Your task to perform on an android device: change text size in settings app Image 0: 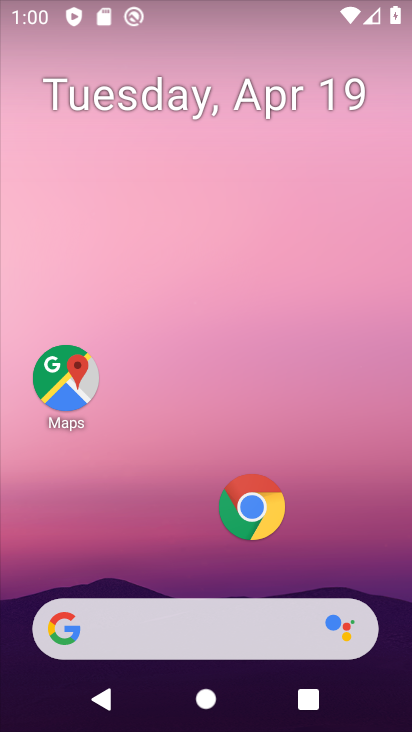
Step 0: drag from (207, 508) to (295, 27)
Your task to perform on an android device: change text size in settings app Image 1: 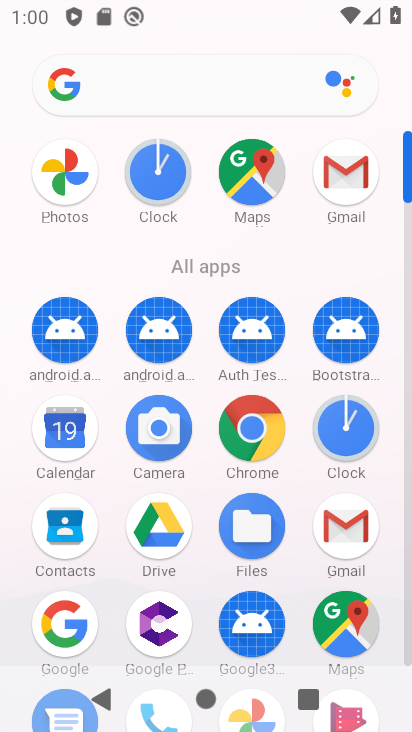
Step 1: drag from (207, 650) to (247, 292)
Your task to perform on an android device: change text size in settings app Image 2: 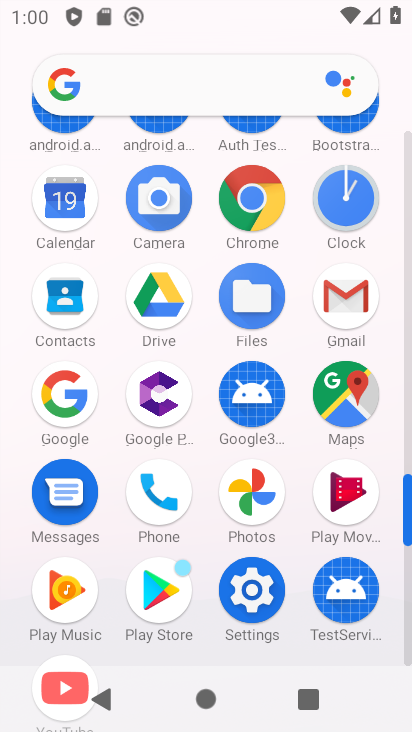
Step 2: click (243, 591)
Your task to perform on an android device: change text size in settings app Image 3: 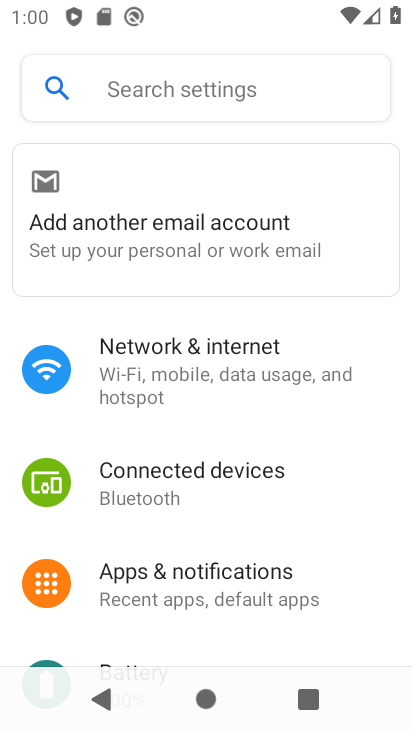
Step 3: drag from (185, 553) to (216, 202)
Your task to perform on an android device: change text size in settings app Image 4: 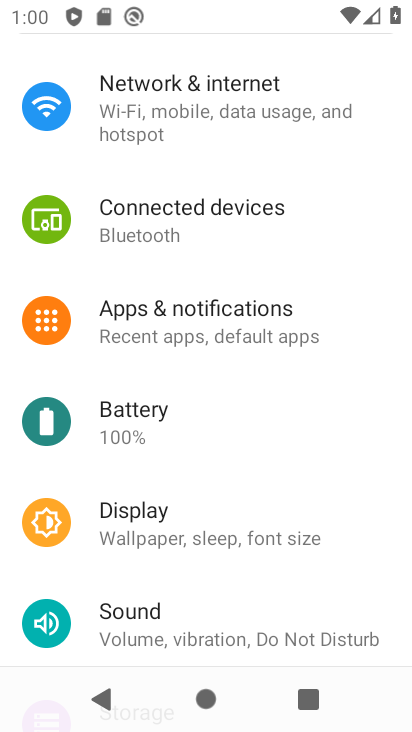
Step 4: click (203, 547)
Your task to perform on an android device: change text size in settings app Image 5: 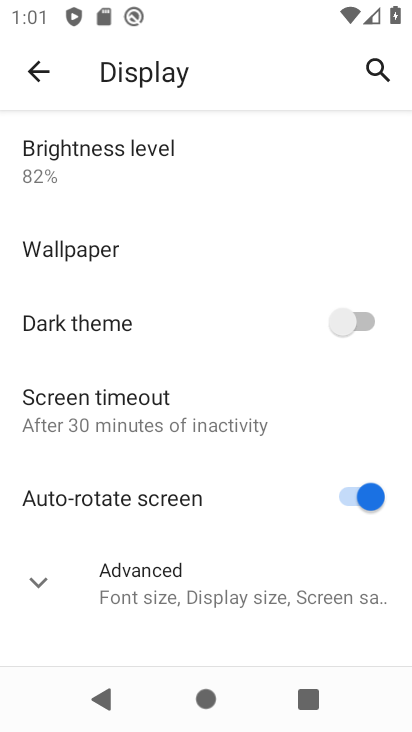
Step 5: click (166, 582)
Your task to perform on an android device: change text size in settings app Image 6: 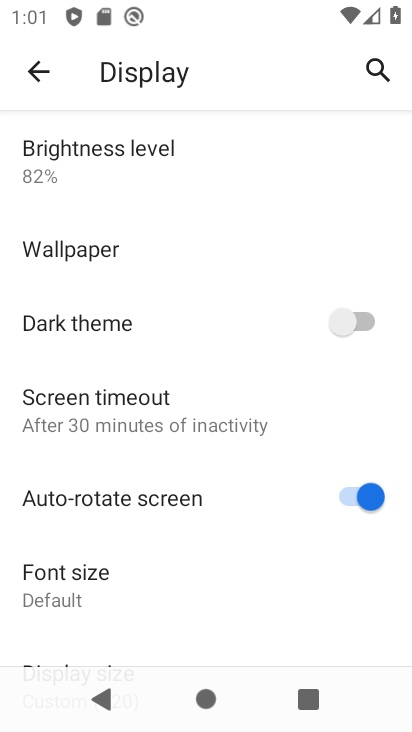
Step 6: click (99, 585)
Your task to perform on an android device: change text size in settings app Image 7: 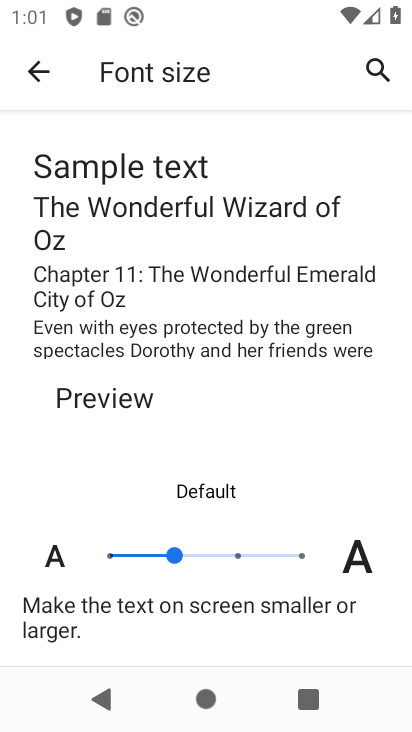
Step 7: click (242, 555)
Your task to perform on an android device: change text size in settings app Image 8: 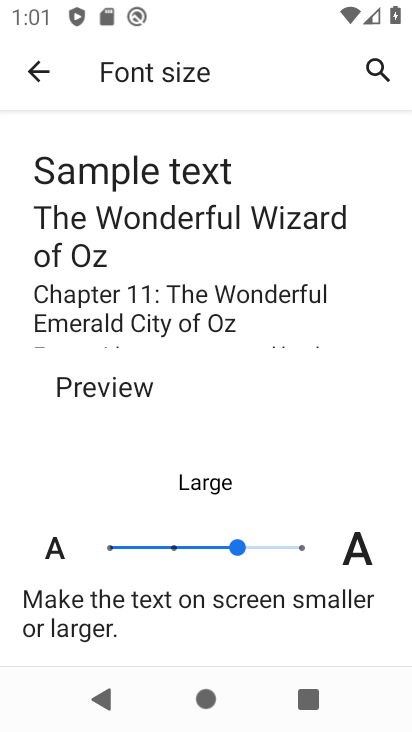
Step 8: task complete